Your task to perform on an android device: toggle javascript in the chrome app Image 0: 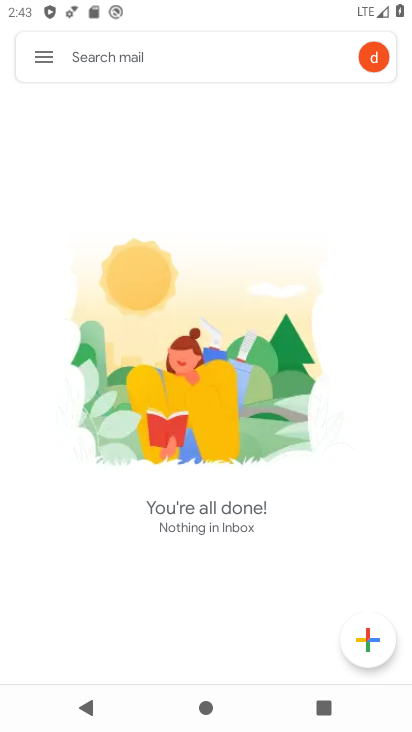
Step 0: press home button
Your task to perform on an android device: toggle javascript in the chrome app Image 1: 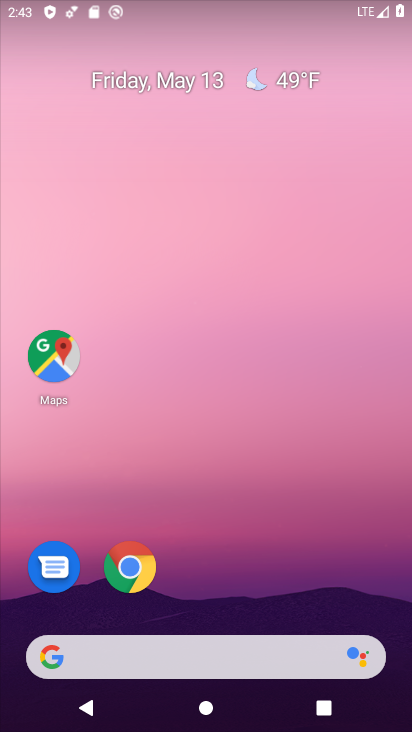
Step 1: drag from (207, 614) to (129, 112)
Your task to perform on an android device: toggle javascript in the chrome app Image 2: 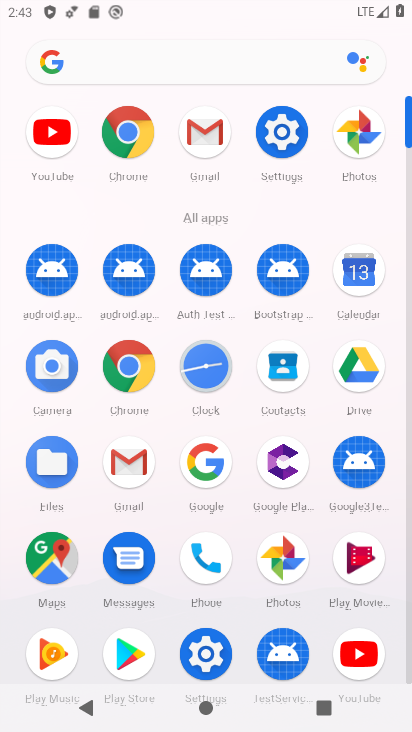
Step 2: click (126, 374)
Your task to perform on an android device: toggle javascript in the chrome app Image 3: 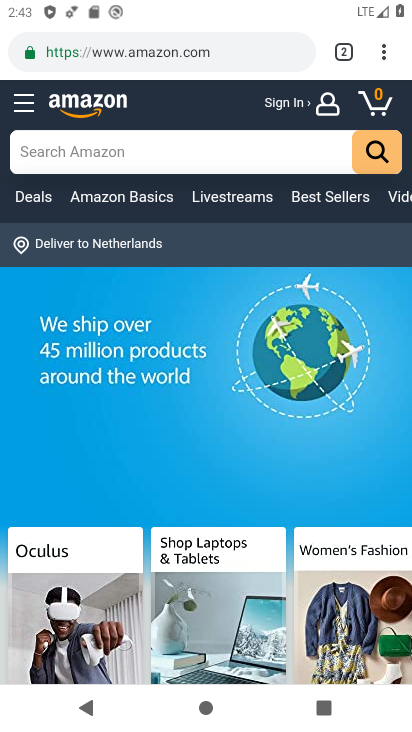
Step 3: click (386, 57)
Your task to perform on an android device: toggle javascript in the chrome app Image 4: 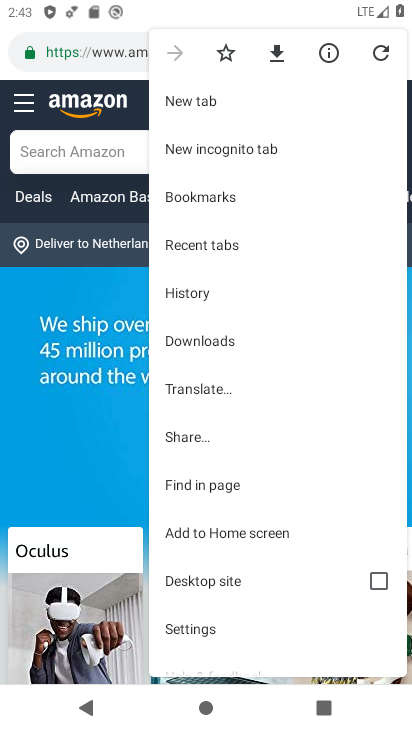
Step 4: click (203, 614)
Your task to perform on an android device: toggle javascript in the chrome app Image 5: 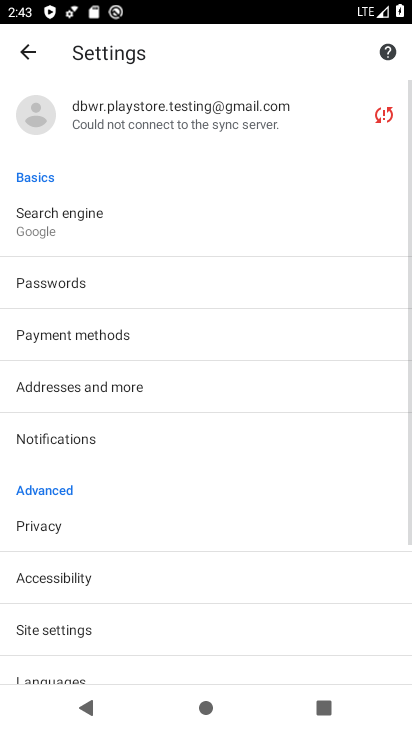
Step 5: drag from (215, 619) to (193, 248)
Your task to perform on an android device: toggle javascript in the chrome app Image 6: 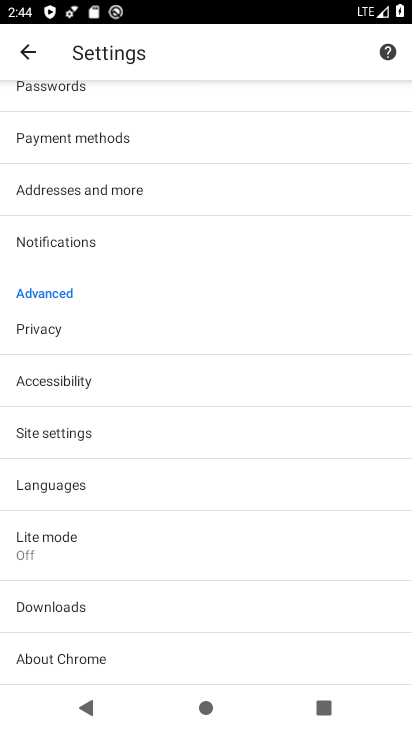
Step 6: click (54, 433)
Your task to perform on an android device: toggle javascript in the chrome app Image 7: 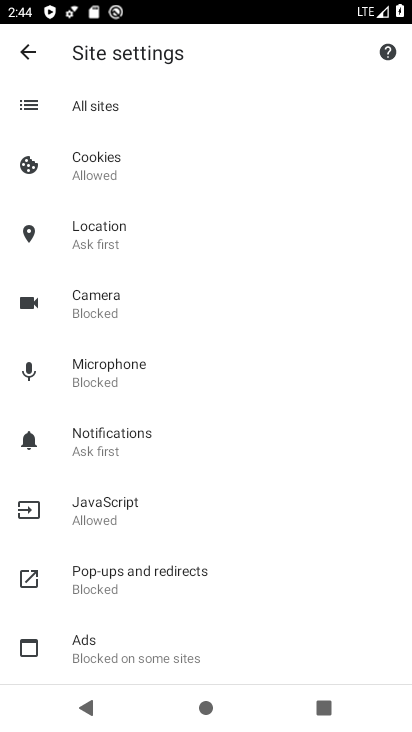
Step 7: click (126, 507)
Your task to perform on an android device: toggle javascript in the chrome app Image 8: 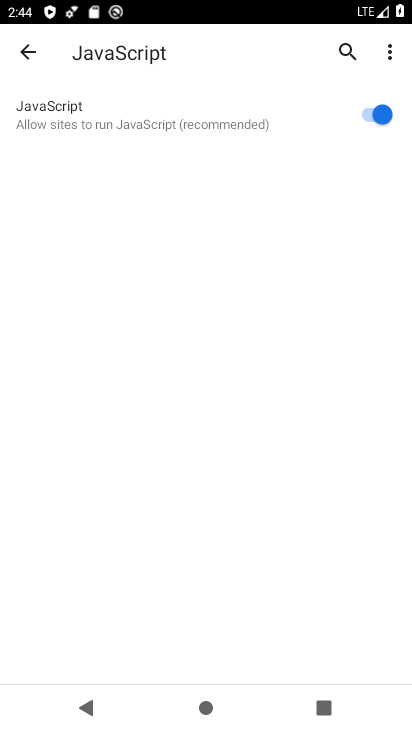
Step 8: click (375, 106)
Your task to perform on an android device: toggle javascript in the chrome app Image 9: 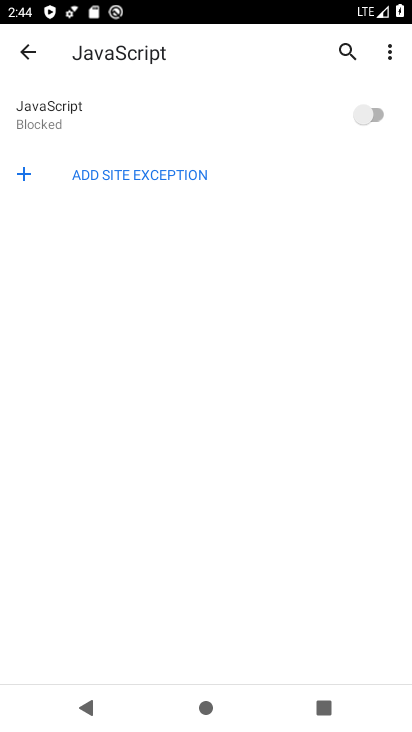
Step 9: task complete